Your task to perform on an android device: Open Youtube and go to "Your channel" Image 0: 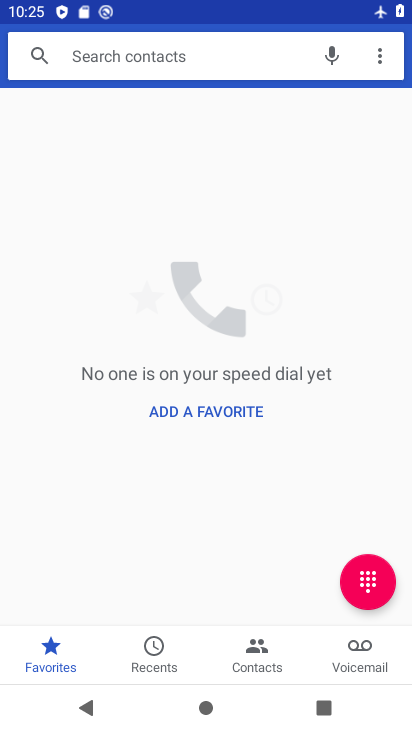
Step 0: press home button
Your task to perform on an android device: Open Youtube and go to "Your channel" Image 1: 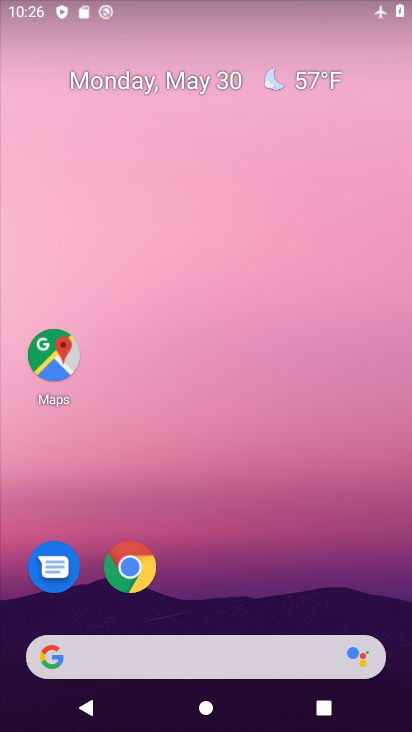
Step 1: drag from (213, 594) to (178, 170)
Your task to perform on an android device: Open Youtube and go to "Your channel" Image 2: 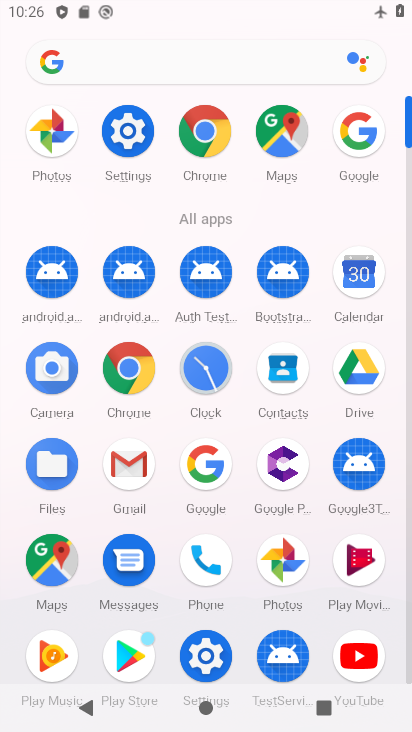
Step 2: click (351, 642)
Your task to perform on an android device: Open Youtube and go to "Your channel" Image 3: 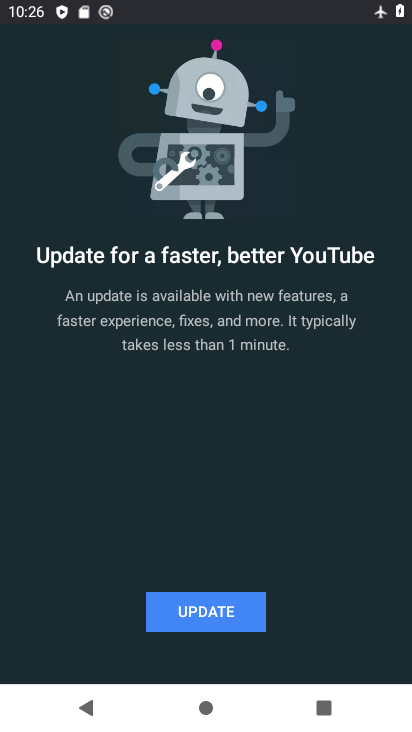
Step 3: click (238, 610)
Your task to perform on an android device: Open Youtube and go to "Your channel" Image 4: 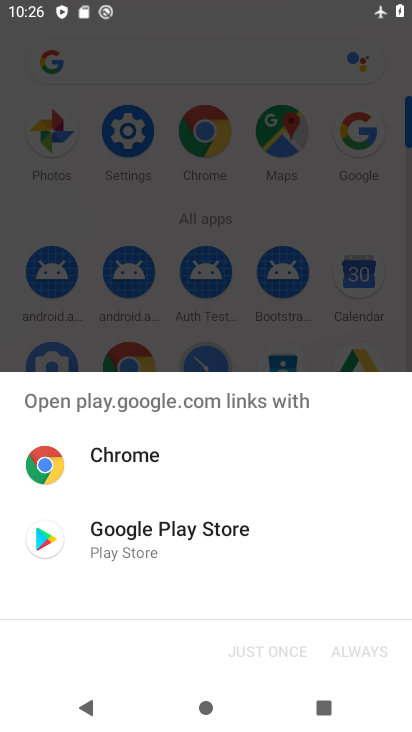
Step 4: click (119, 549)
Your task to perform on an android device: Open Youtube and go to "Your channel" Image 5: 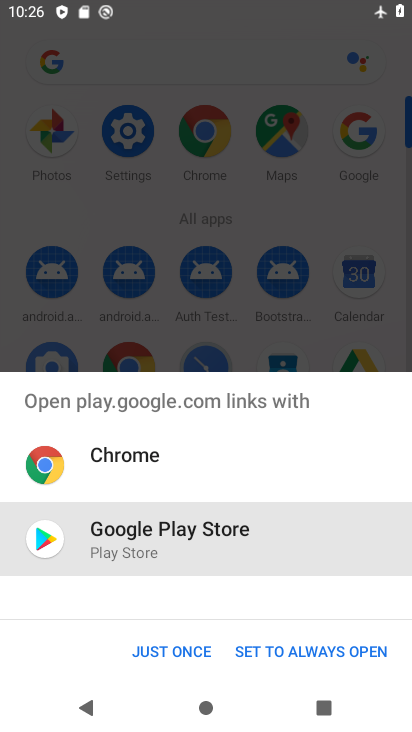
Step 5: click (173, 650)
Your task to perform on an android device: Open Youtube and go to "Your channel" Image 6: 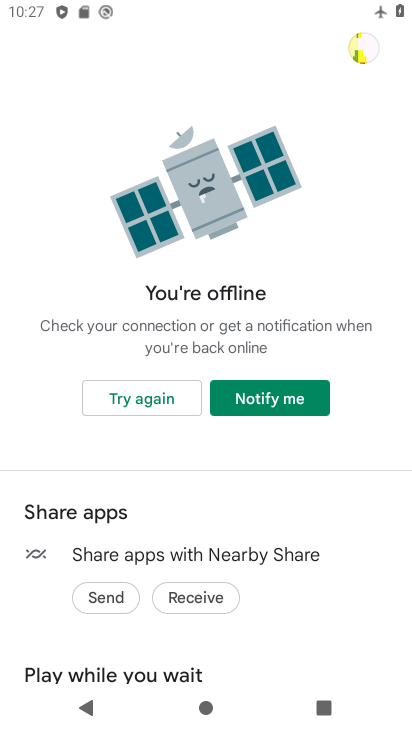
Step 6: task complete